Your task to perform on an android device: turn off wifi Image 0: 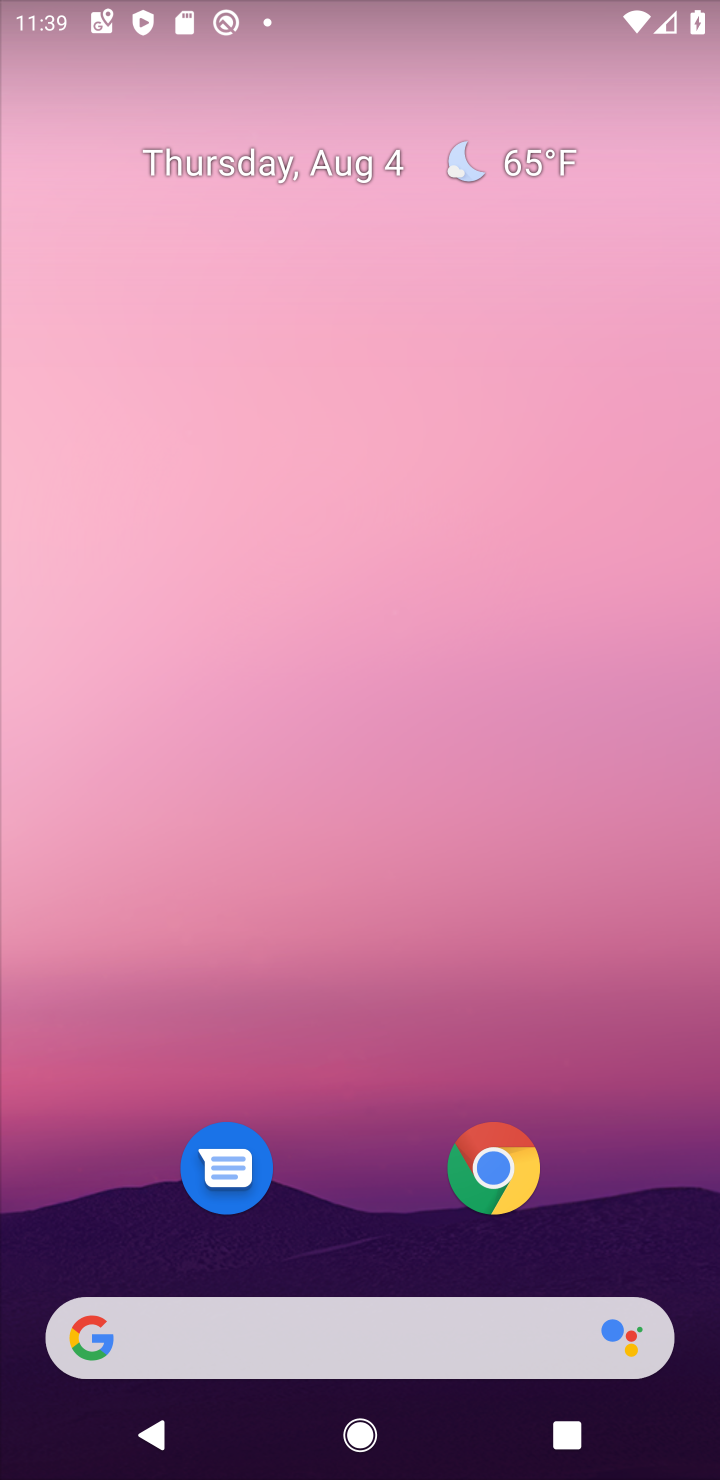
Step 0: drag from (374, 25) to (444, 989)
Your task to perform on an android device: turn off wifi Image 1: 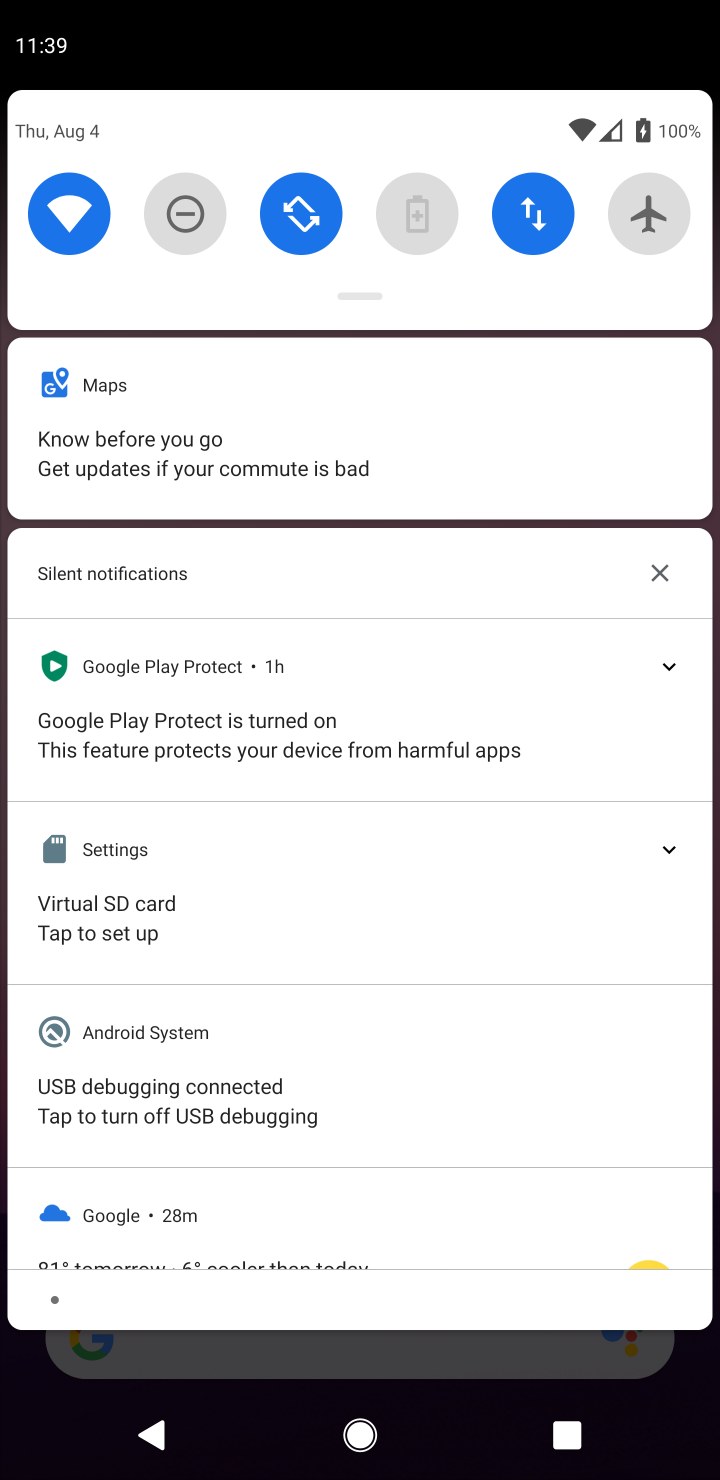
Step 1: click (87, 227)
Your task to perform on an android device: turn off wifi Image 2: 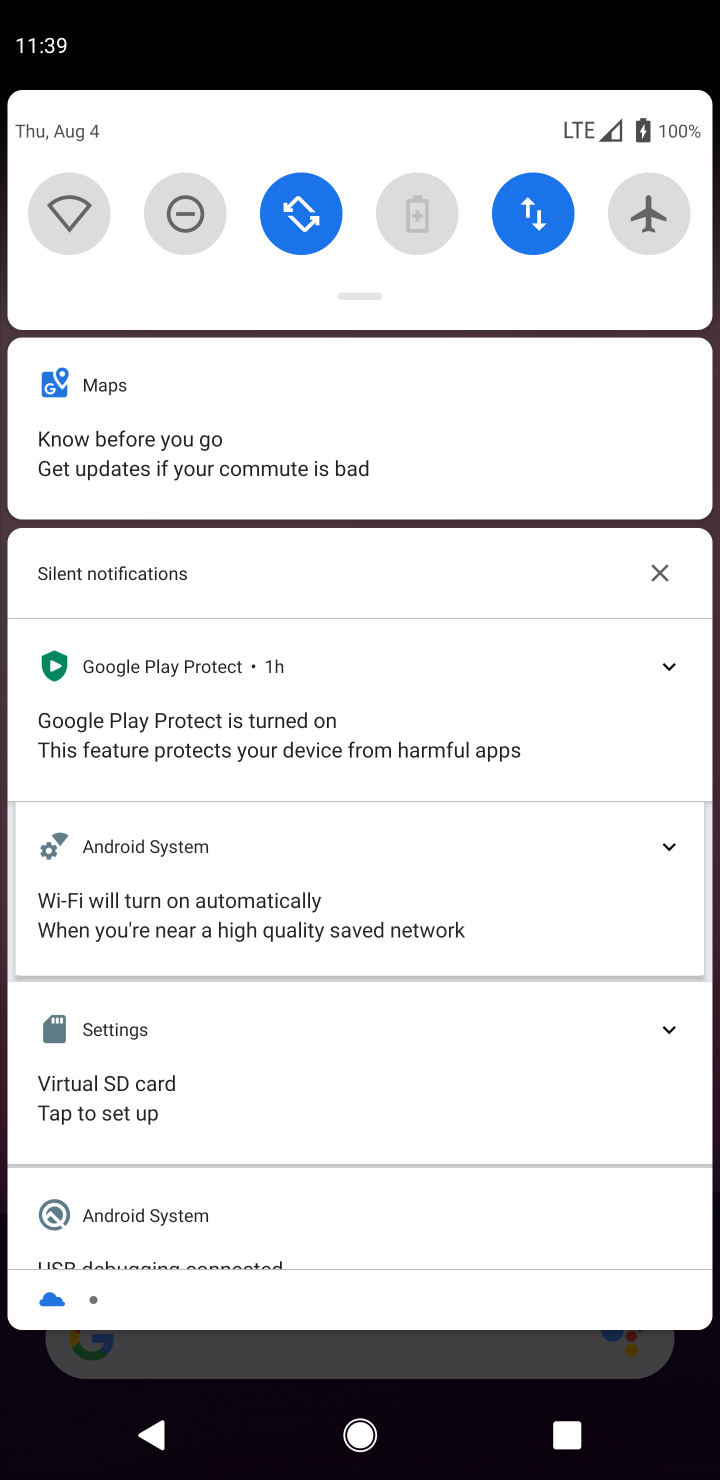
Step 2: task complete